Your task to perform on an android device: Open settings Image 0: 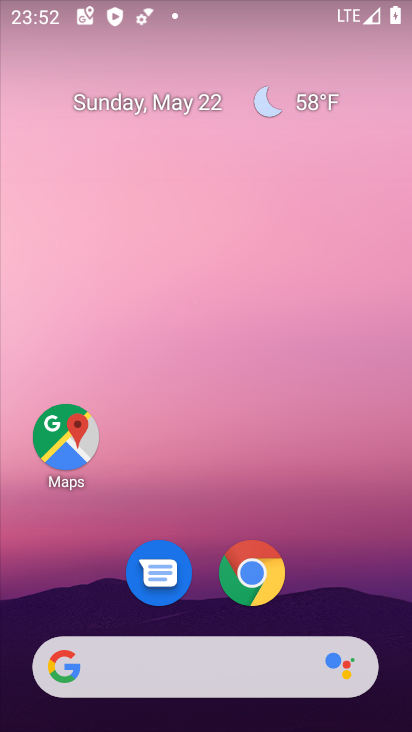
Step 0: drag from (210, 615) to (175, 0)
Your task to perform on an android device: Open settings Image 1: 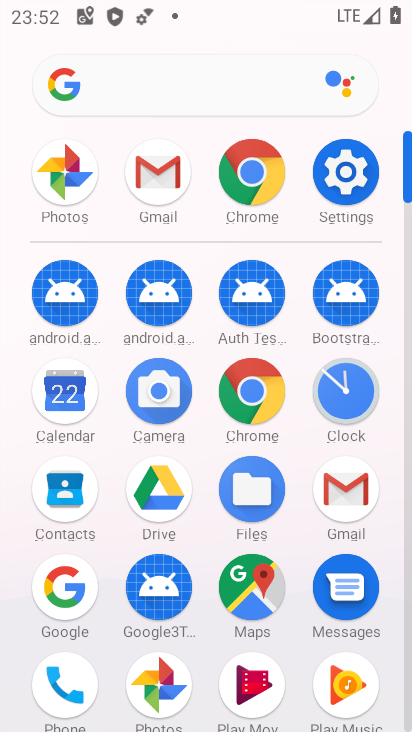
Step 1: click (352, 191)
Your task to perform on an android device: Open settings Image 2: 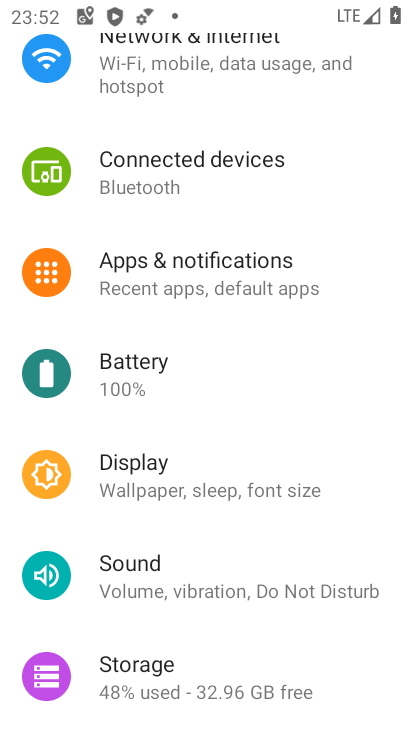
Step 2: task complete